Your task to perform on an android device: Find coffee shops on Maps Image 0: 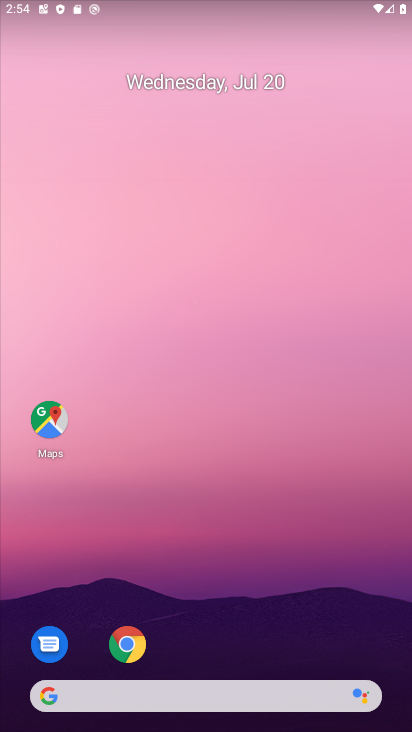
Step 0: click (40, 423)
Your task to perform on an android device: Find coffee shops on Maps Image 1: 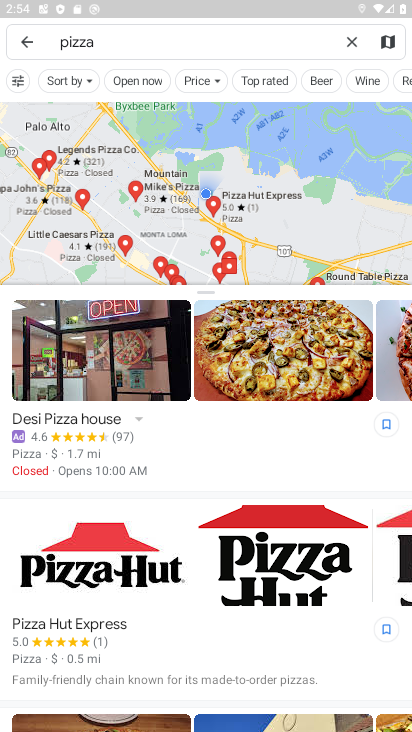
Step 1: click (344, 50)
Your task to perform on an android device: Find coffee shops on Maps Image 2: 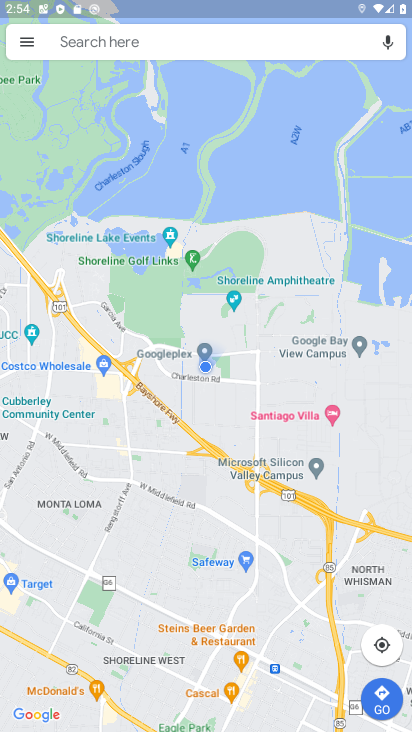
Step 2: type "coffee"
Your task to perform on an android device: Find coffee shops on Maps Image 3: 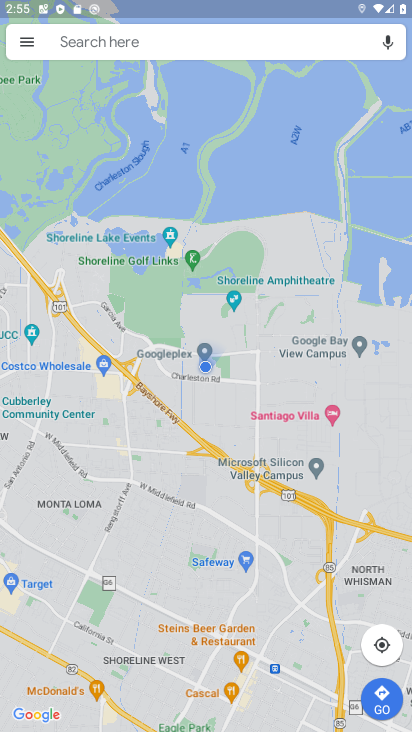
Step 3: click (193, 53)
Your task to perform on an android device: Find coffee shops on Maps Image 4: 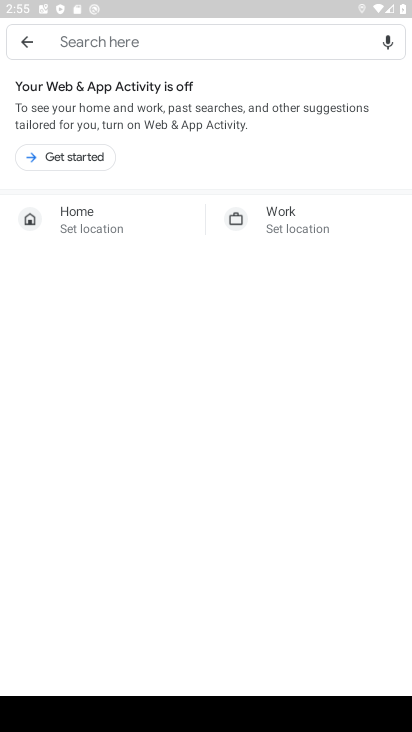
Step 4: type "coffee"
Your task to perform on an android device: Find coffee shops on Maps Image 5: 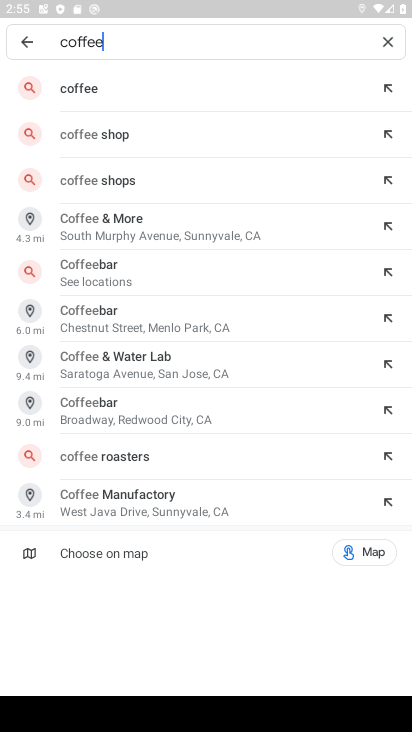
Step 5: click (129, 126)
Your task to perform on an android device: Find coffee shops on Maps Image 6: 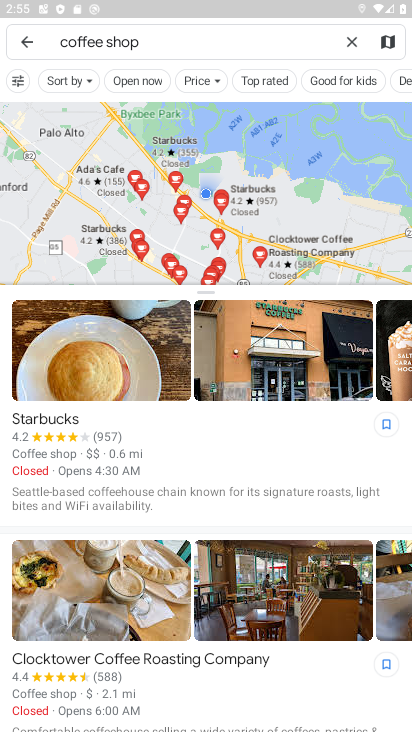
Step 6: task complete